Your task to perform on an android device: Open Google Maps and go to "Timeline" Image 0: 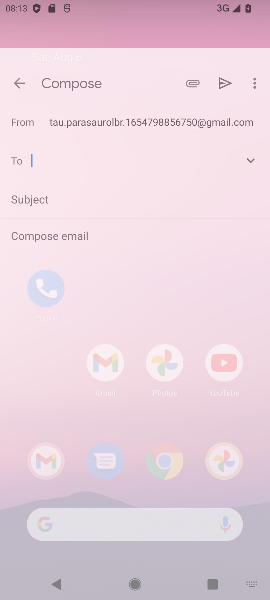
Step 0: press home button
Your task to perform on an android device: Open Google Maps and go to "Timeline" Image 1: 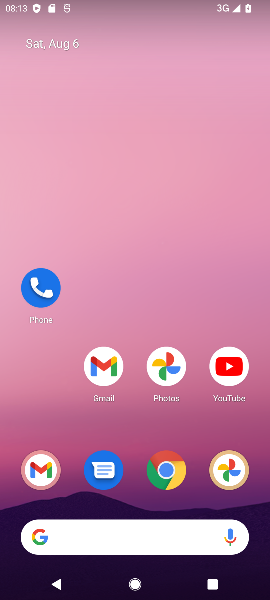
Step 1: drag from (183, 434) to (226, 93)
Your task to perform on an android device: Open Google Maps and go to "Timeline" Image 2: 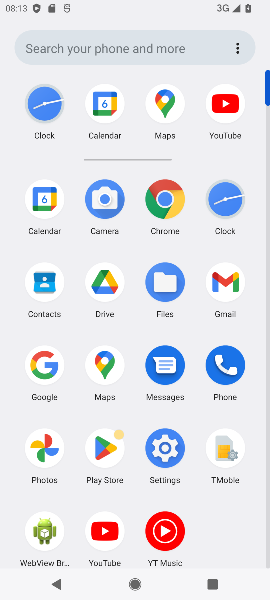
Step 2: click (95, 369)
Your task to perform on an android device: Open Google Maps and go to "Timeline" Image 3: 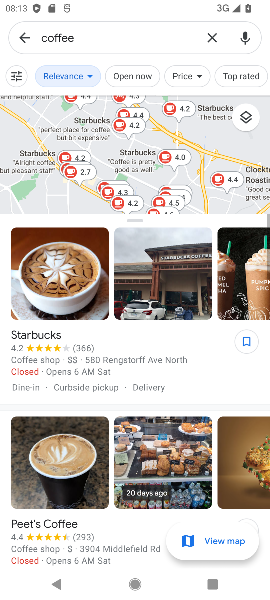
Step 3: click (26, 43)
Your task to perform on an android device: Open Google Maps and go to "Timeline" Image 4: 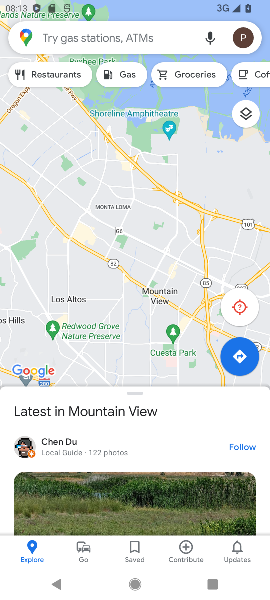
Step 4: click (240, 44)
Your task to perform on an android device: Open Google Maps and go to "Timeline" Image 5: 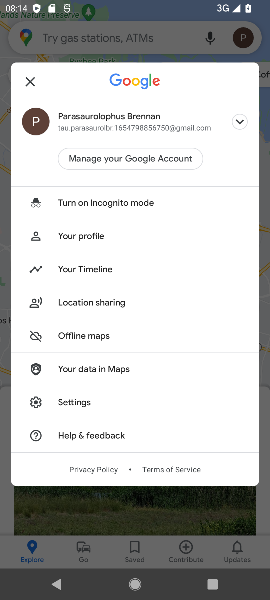
Step 5: click (70, 268)
Your task to perform on an android device: Open Google Maps and go to "Timeline" Image 6: 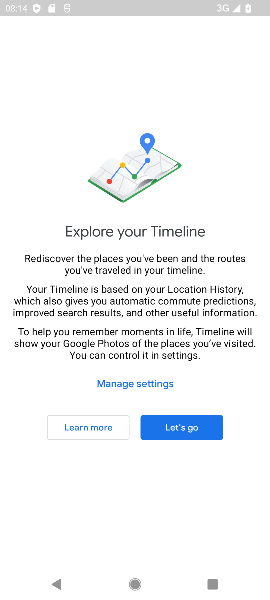
Step 6: click (190, 426)
Your task to perform on an android device: Open Google Maps and go to "Timeline" Image 7: 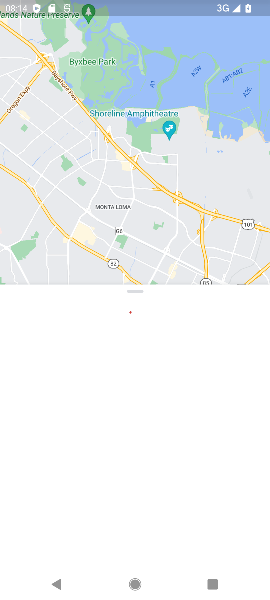
Step 7: task complete